Your task to perform on an android device: snooze an email in the gmail app Image 0: 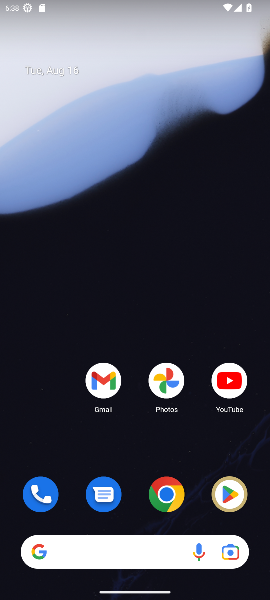
Step 0: drag from (60, 412) to (93, 76)
Your task to perform on an android device: snooze an email in the gmail app Image 1: 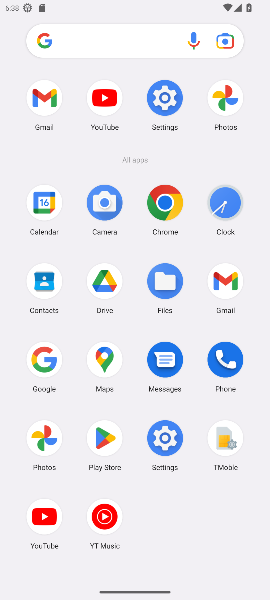
Step 1: click (233, 274)
Your task to perform on an android device: snooze an email in the gmail app Image 2: 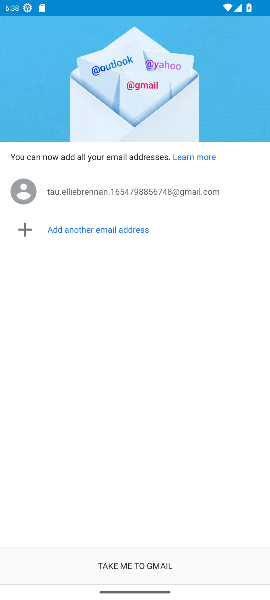
Step 2: click (146, 563)
Your task to perform on an android device: snooze an email in the gmail app Image 3: 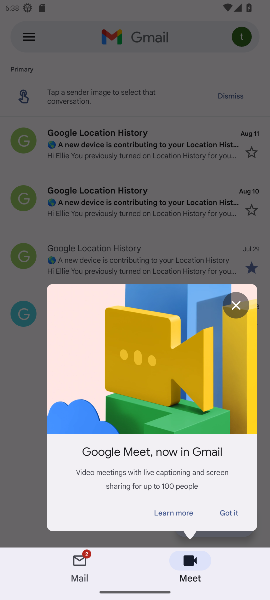
Step 3: task complete